Your task to perform on an android device: Open the map Image 0: 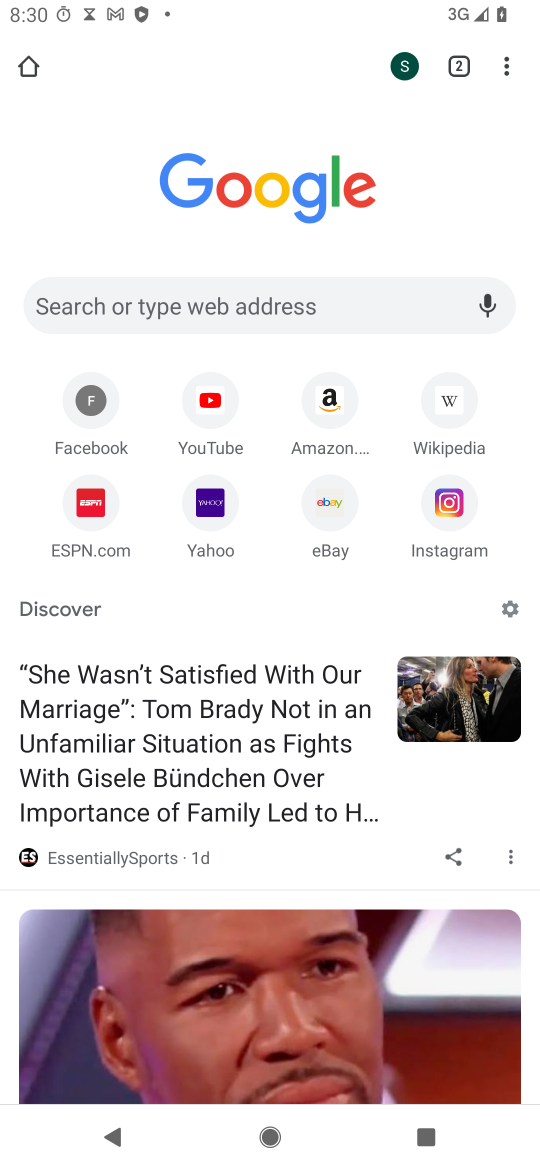
Step 0: press home button
Your task to perform on an android device: Open the map Image 1: 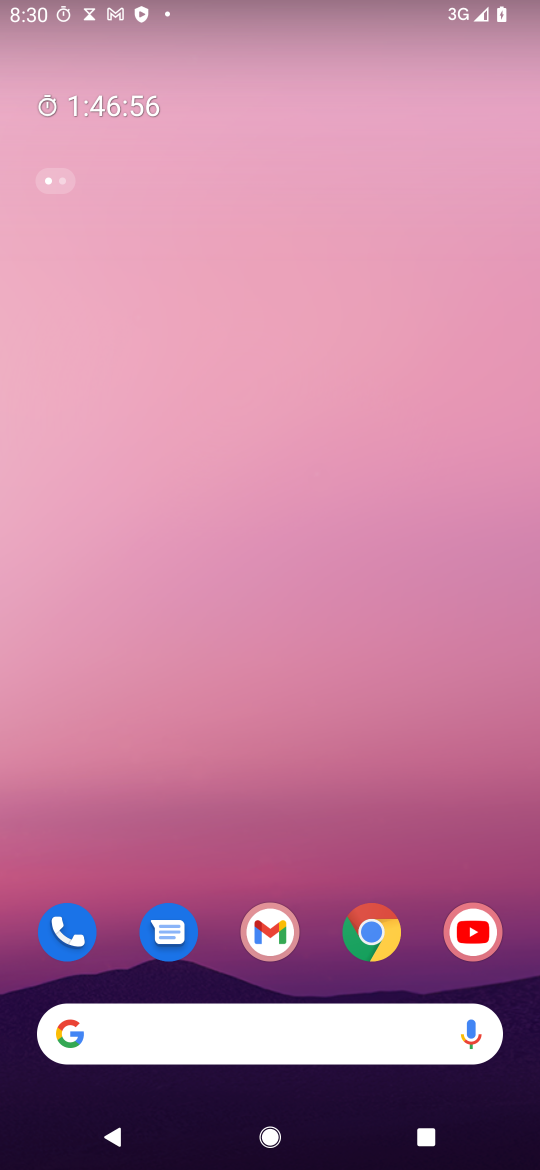
Step 1: drag from (313, 871) to (405, 17)
Your task to perform on an android device: Open the map Image 2: 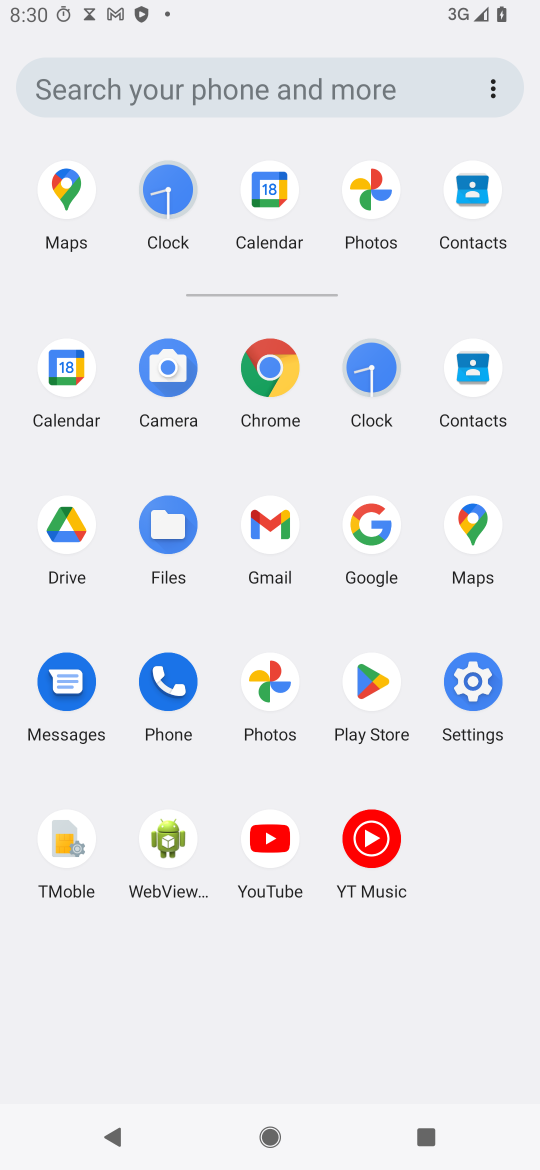
Step 2: click (473, 516)
Your task to perform on an android device: Open the map Image 3: 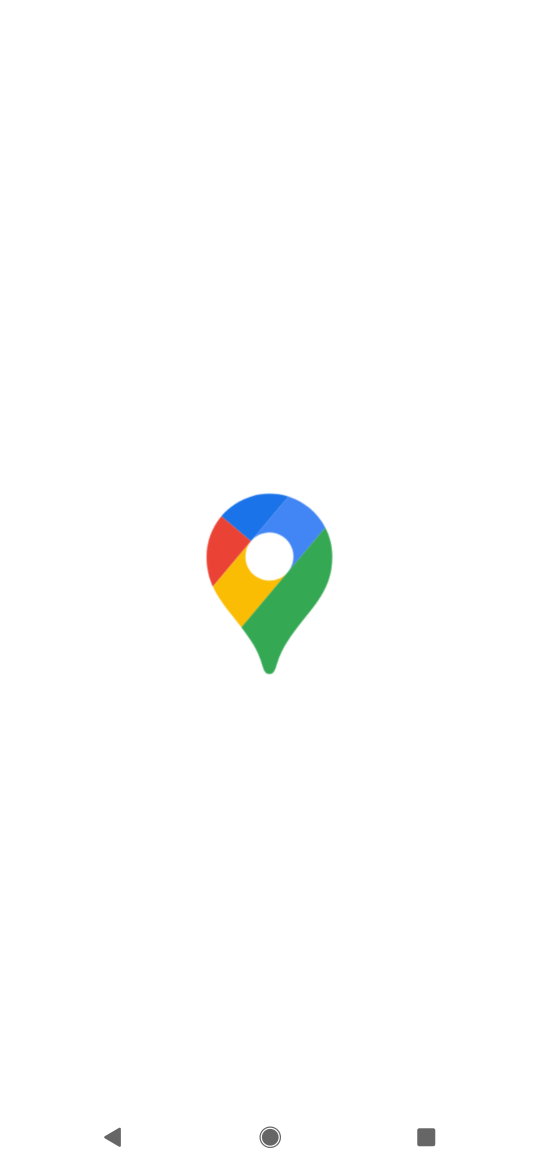
Step 3: task complete